Your task to perform on an android device: Open the web browser Image 0: 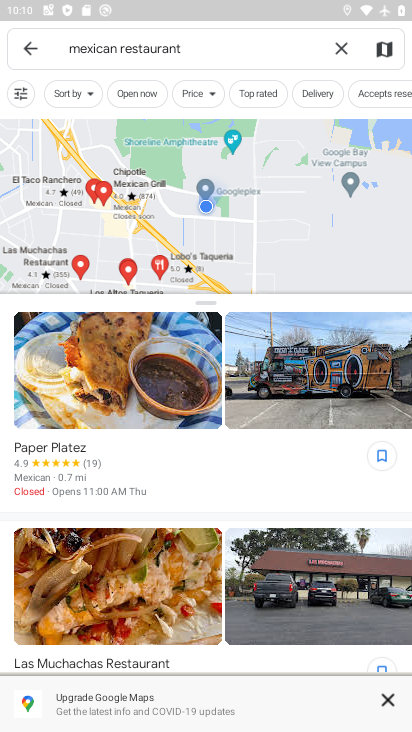
Step 0: press home button
Your task to perform on an android device: Open the web browser Image 1: 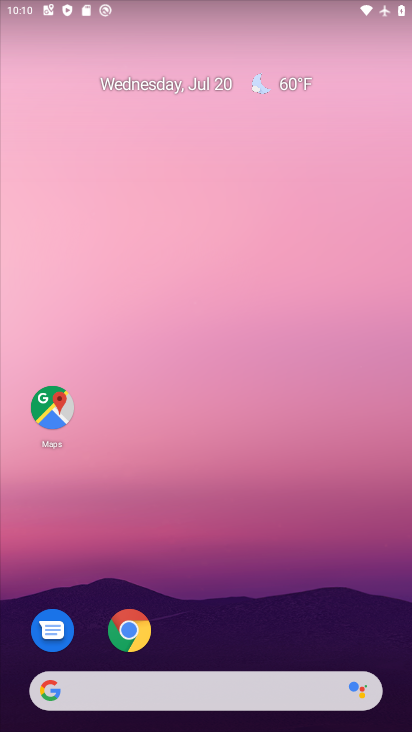
Step 1: drag from (208, 670) to (246, 368)
Your task to perform on an android device: Open the web browser Image 2: 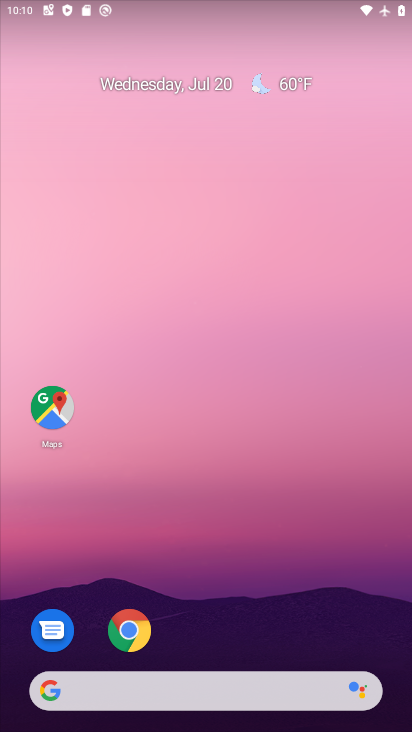
Step 2: drag from (231, 669) to (185, 390)
Your task to perform on an android device: Open the web browser Image 3: 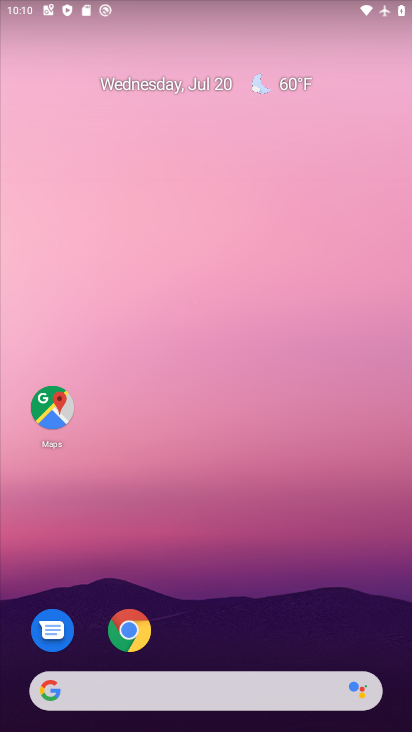
Step 3: drag from (276, 611) to (299, 286)
Your task to perform on an android device: Open the web browser Image 4: 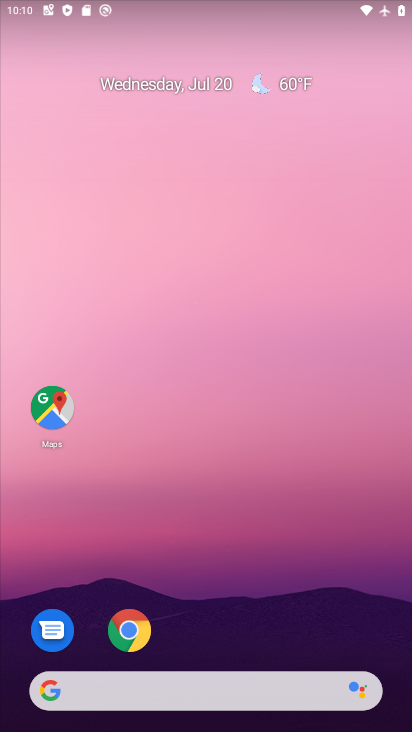
Step 4: click (131, 630)
Your task to perform on an android device: Open the web browser Image 5: 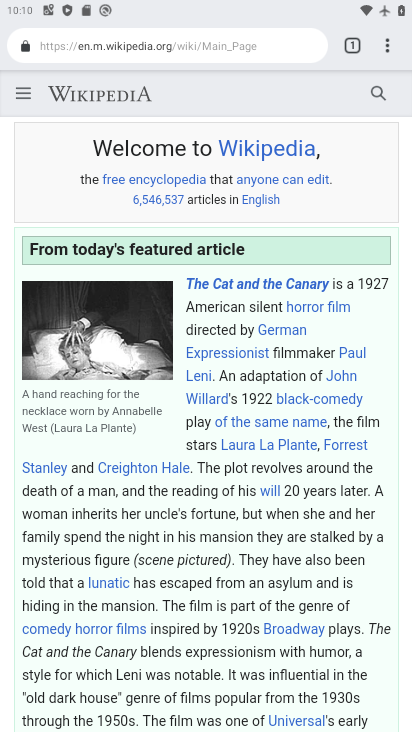
Step 5: task complete